Your task to perform on an android device: toggle show notifications on the lock screen Image 0: 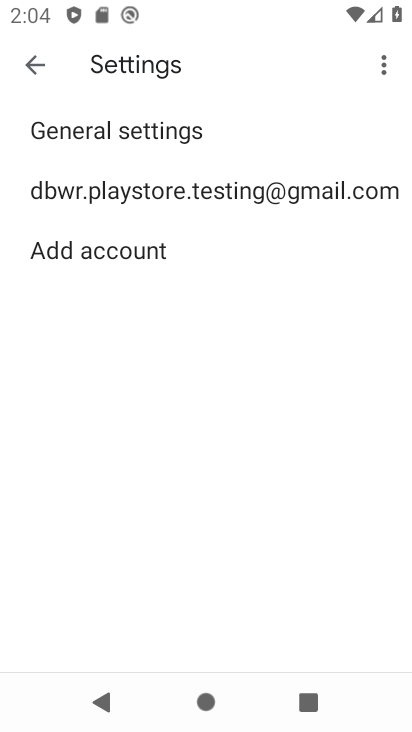
Step 0: press back button
Your task to perform on an android device: toggle show notifications on the lock screen Image 1: 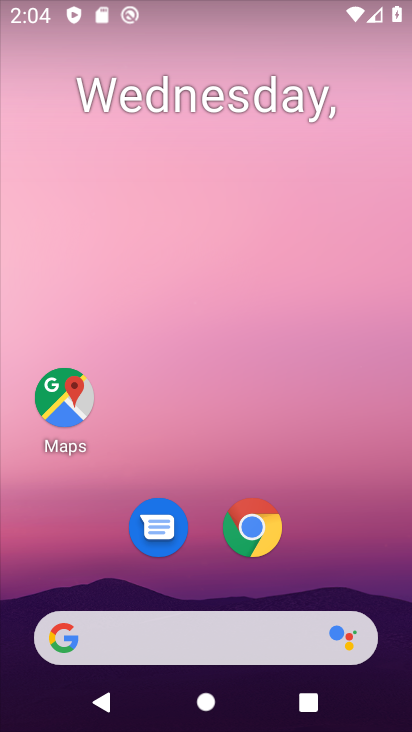
Step 1: drag from (297, 576) to (283, 140)
Your task to perform on an android device: toggle show notifications on the lock screen Image 2: 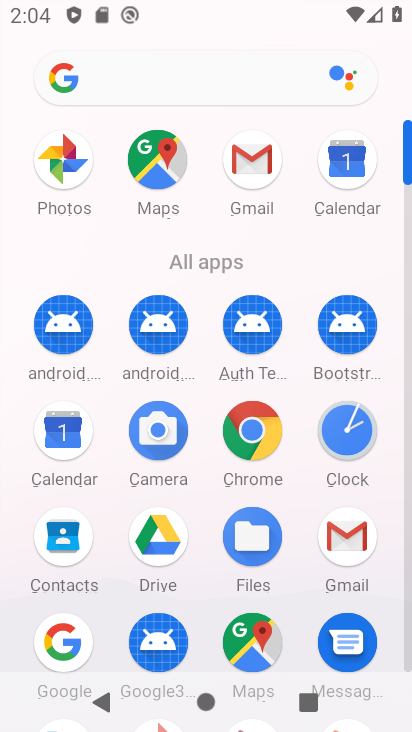
Step 2: drag from (209, 597) to (206, 334)
Your task to perform on an android device: toggle show notifications on the lock screen Image 3: 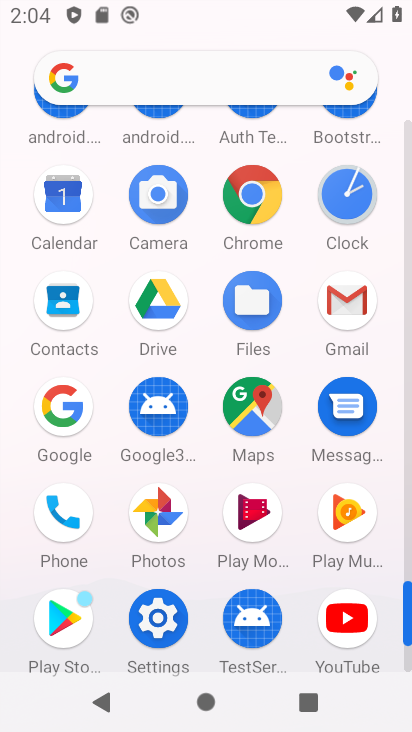
Step 3: click (155, 615)
Your task to perform on an android device: toggle show notifications on the lock screen Image 4: 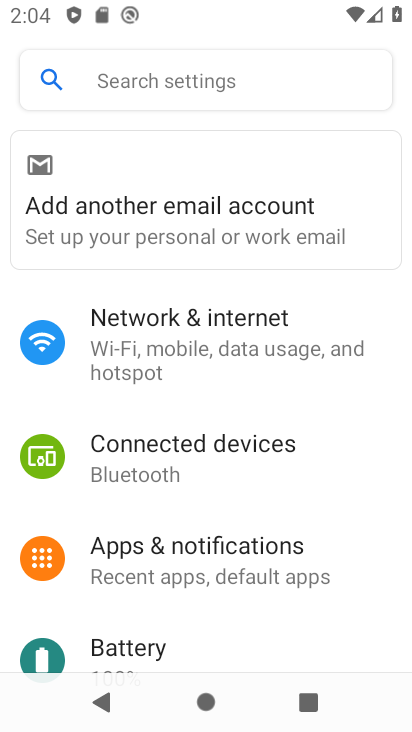
Step 4: drag from (169, 514) to (183, 389)
Your task to perform on an android device: toggle show notifications on the lock screen Image 5: 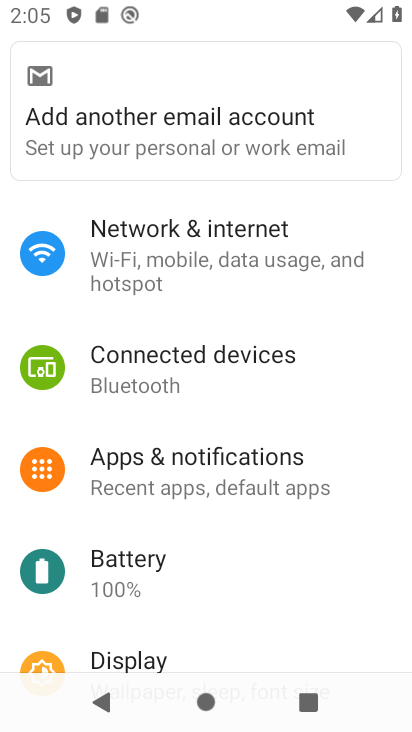
Step 5: click (219, 452)
Your task to perform on an android device: toggle show notifications on the lock screen Image 6: 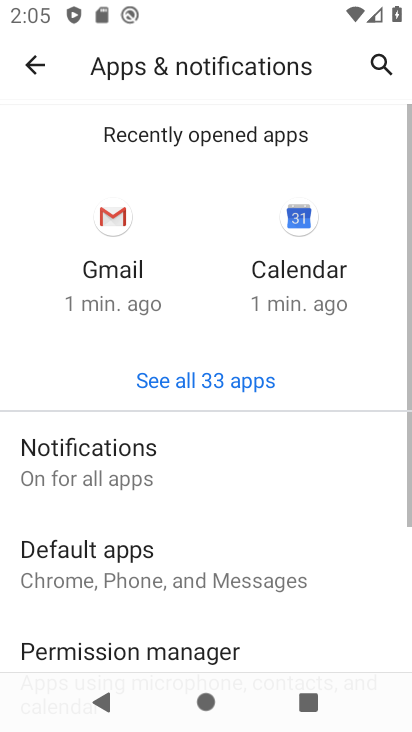
Step 6: click (90, 448)
Your task to perform on an android device: toggle show notifications on the lock screen Image 7: 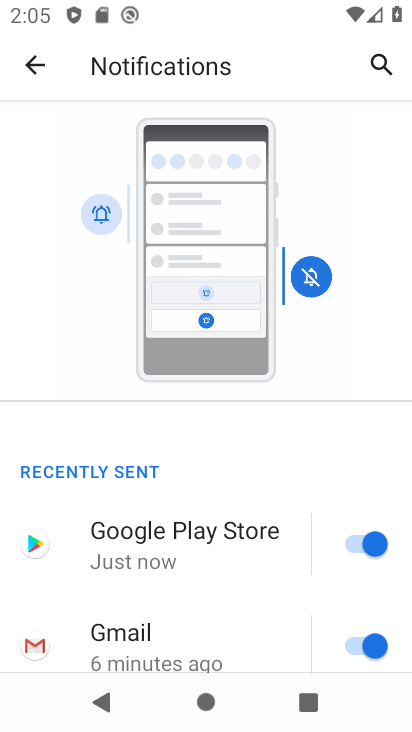
Step 7: drag from (165, 597) to (201, 392)
Your task to perform on an android device: toggle show notifications on the lock screen Image 8: 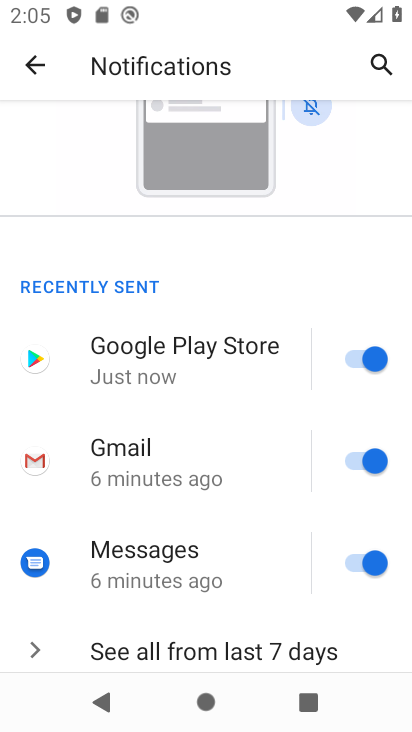
Step 8: drag from (116, 522) to (131, 391)
Your task to perform on an android device: toggle show notifications on the lock screen Image 9: 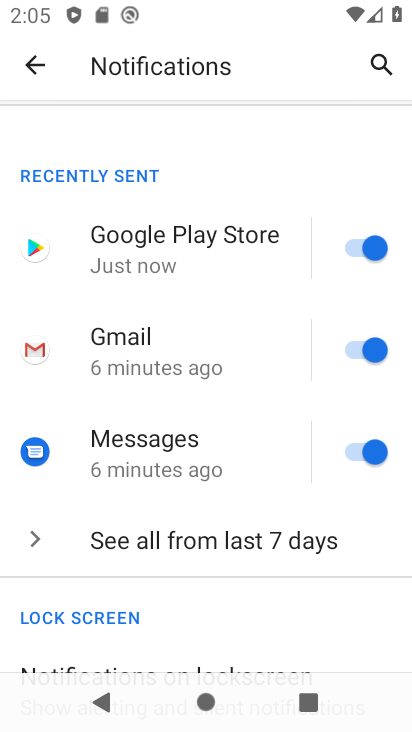
Step 9: drag from (140, 506) to (168, 344)
Your task to perform on an android device: toggle show notifications on the lock screen Image 10: 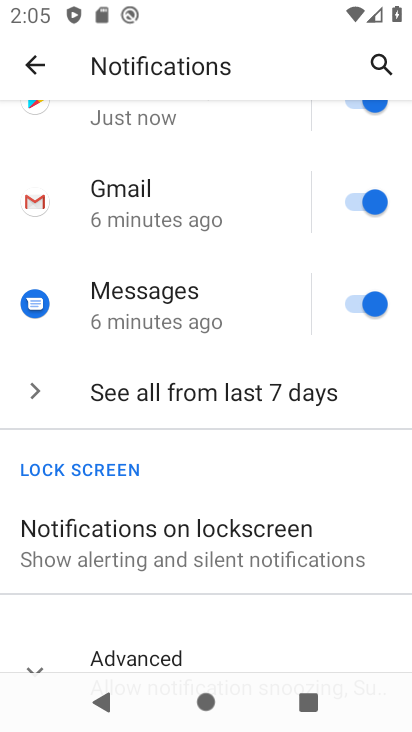
Step 10: click (203, 552)
Your task to perform on an android device: toggle show notifications on the lock screen Image 11: 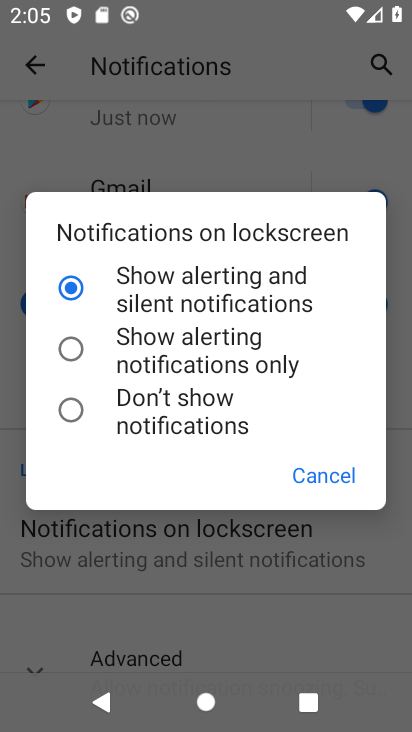
Step 11: click (62, 417)
Your task to perform on an android device: toggle show notifications on the lock screen Image 12: 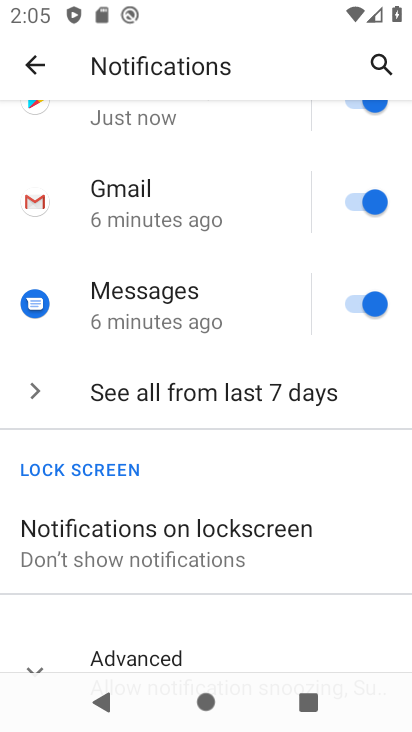
Step 12: task complete